Your task to perform on an android device: toggle notifications settings in the gmail app Image 0: 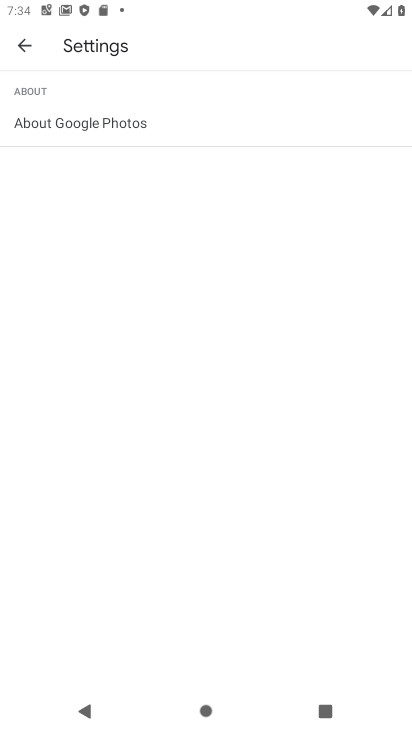
Step 0: press home button
Your task to perform on an android device: toggle notifications settings in the gmail app Image 1: 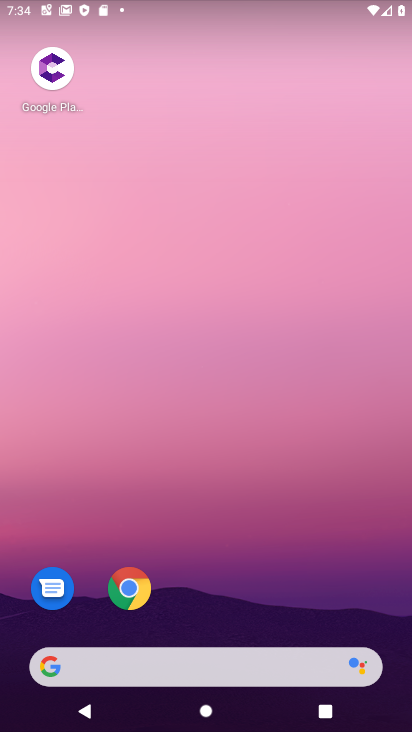
Step 1: drag from (237, 630) to (333, 18)
Your task to perform on an android device: toggle notifications settings in the gmail app Image 2: 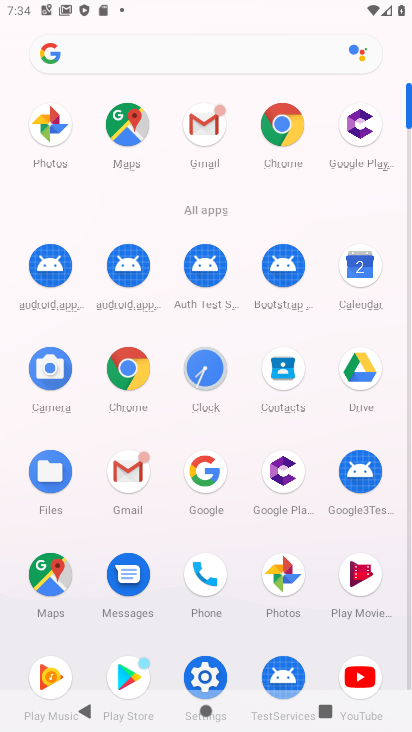
Step 2: click (217, 135)
Your task to perform on an android device: toggle notifications settings in the gmail app Image 3: 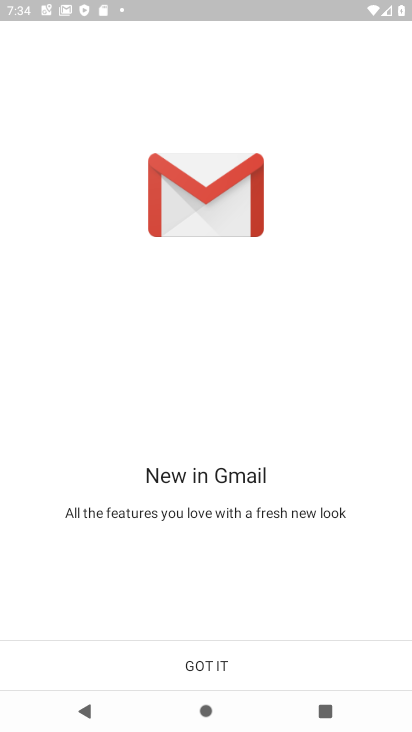
Step 3: click (209, 674)
Your task to perform on an android device: toggle notifications settings in the gmail app Image 4: 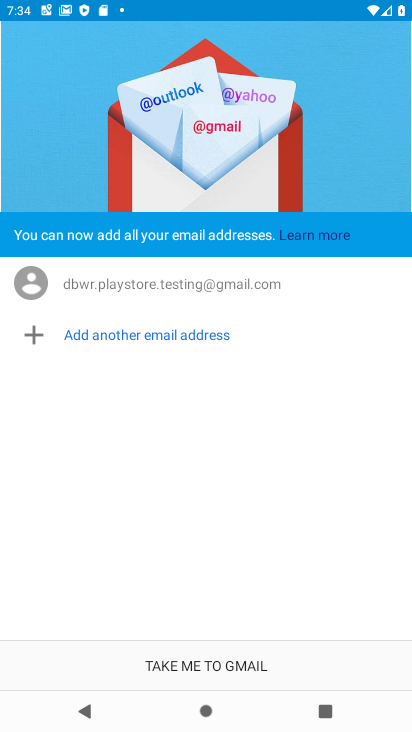
Step 4: click (201, 663)
Your task to perform on an android device: toggle notifications settings in the gmail app Image 5: 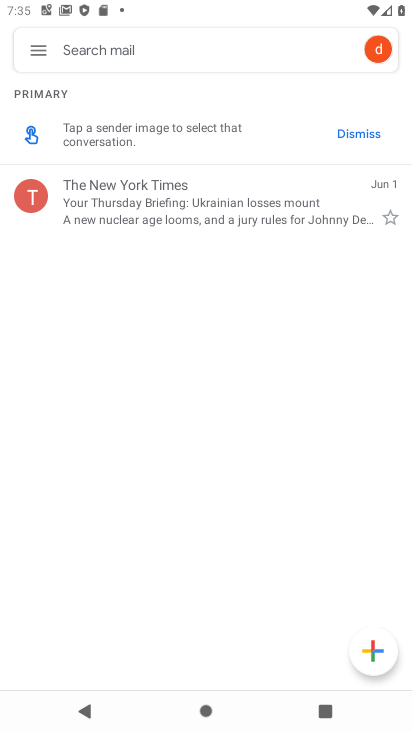
Step 5: click (40, 53)
Your task to perform on an android device: toggle notifications settings in the gmail app Image 6: 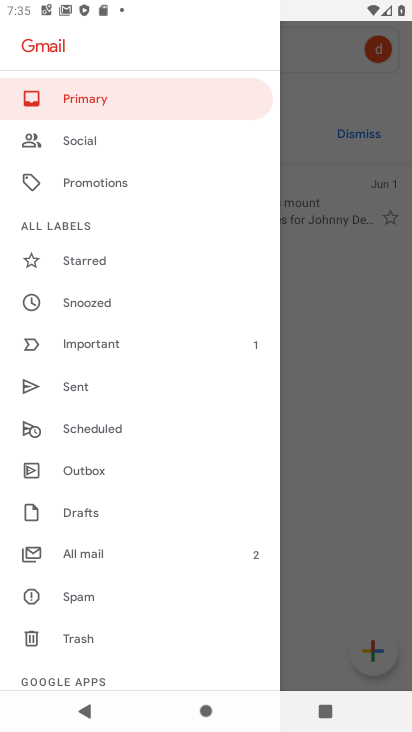
Step 6: drag from (151, 322) to (170, 152)
Your task to perform on an android device: toggle notifications settings in the gmail app Image 7: 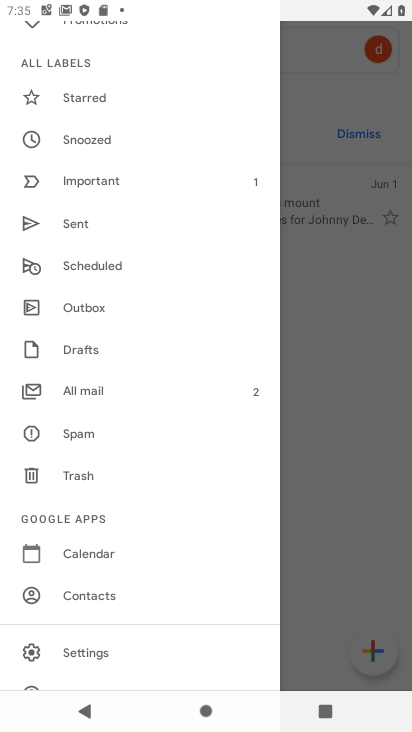
Step 7: click (122, 652)
Your task to perform on an android device: toggle notifications settings in the gmail app Image 8: 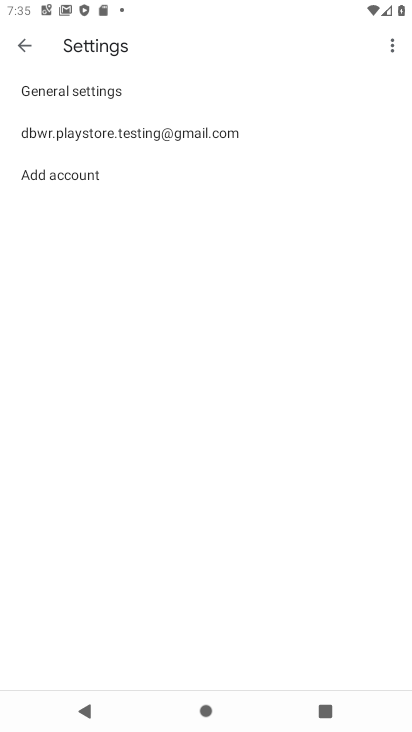
Step 8: click (104, 84)
Your task to perform on an android device: toggle notifications settings in the gmail app Image 9: 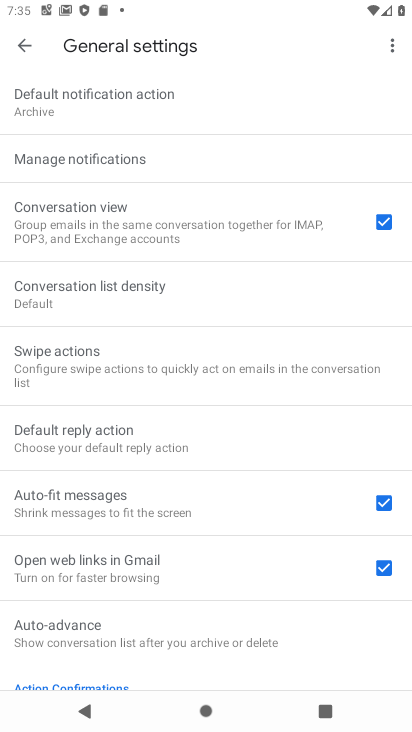
Step 9: click (136, 165)
Your task to perform on an android device: toggle notifications settings in the gmail app Image 10: 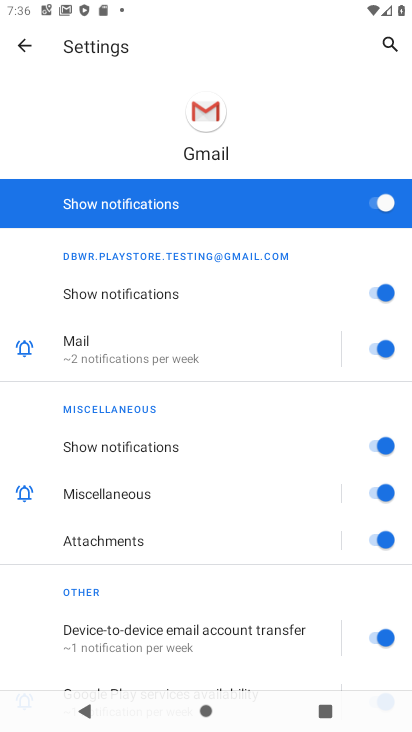
Step 10: click (358, 208)
Your task to perform on an android device: toggle notifications settings in the gmail app Image 11: 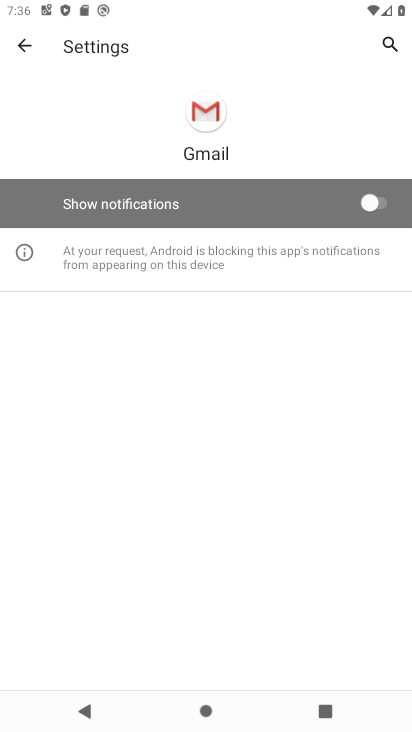
Step 11: task complete